Your task to perform on an android device: turn off improve location accuracy Image 0: 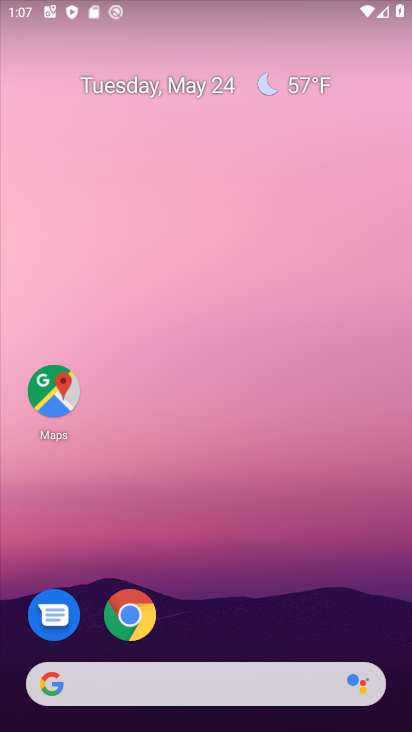
Step 0: drag from (234, 653) to (149, 23)
Your task to perform on an android device: turn off improve location accuracy Image 1: 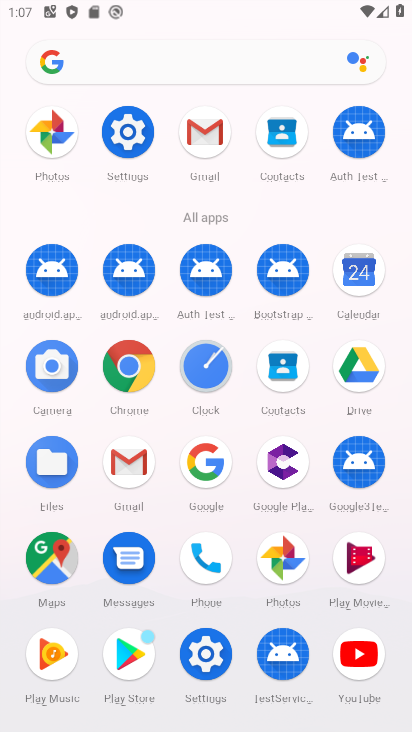
Step 1: click (129, 132)
Your task to perform on an android device: turn off improve location accuracy Image 2: 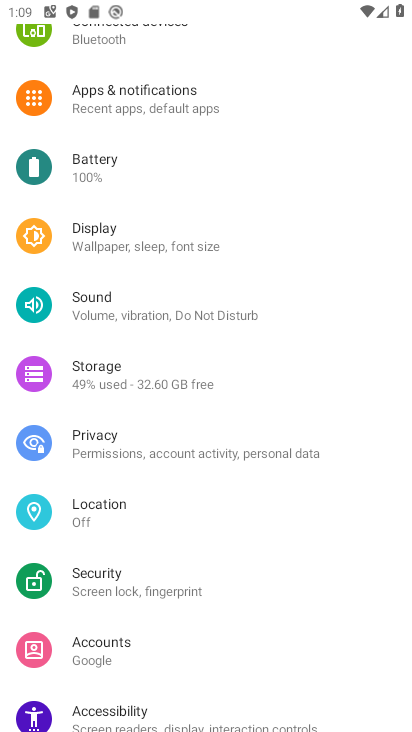
Step 2: click (92, 517)
Your task to perform on an android device: turn off improve location accuracy Image 3: 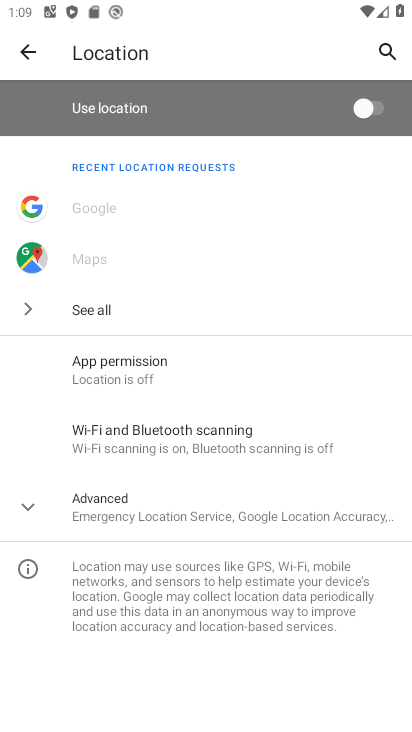
Step 3: click (111, 495)
Your task to perform on an android device: turn off improve location accuracy Image 4: 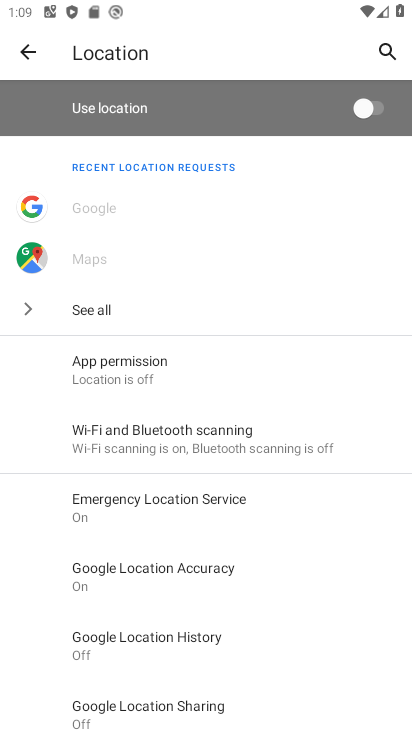
Step 4: click (115, 578)
Your task to perform on an android device: turn off improve location accuracy Image 5: 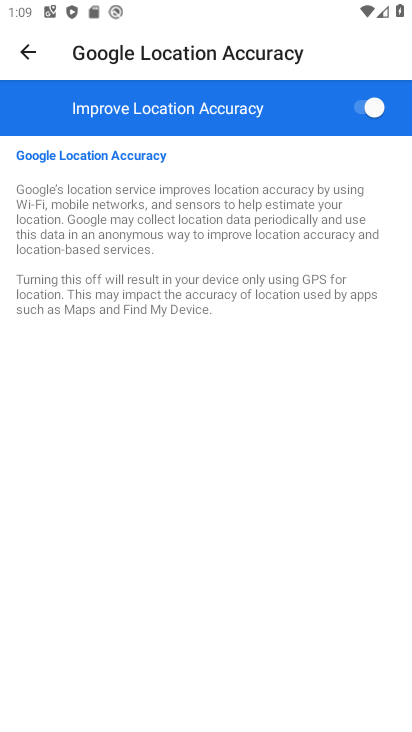
Step 5: click (355, 105)
Your task to perform on an android device: turn off improve location accuracy Image 6: 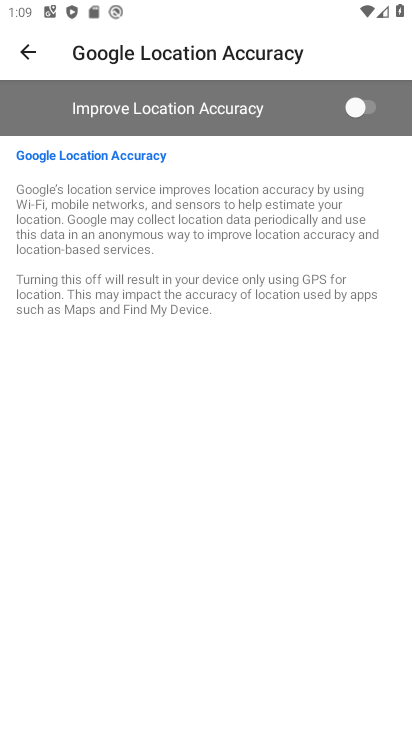
Step 6: task complete